Your task to perform on an android device: turn on showing notifications on the lock screen Image 0: 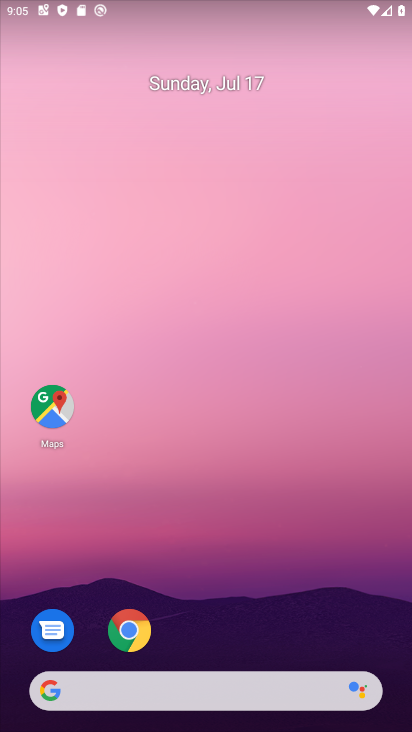
Step 0: drag from (325, 611) to (368, 91)
Your task to perform on an android device: turn on showing notifications on the lock screen Image 1: 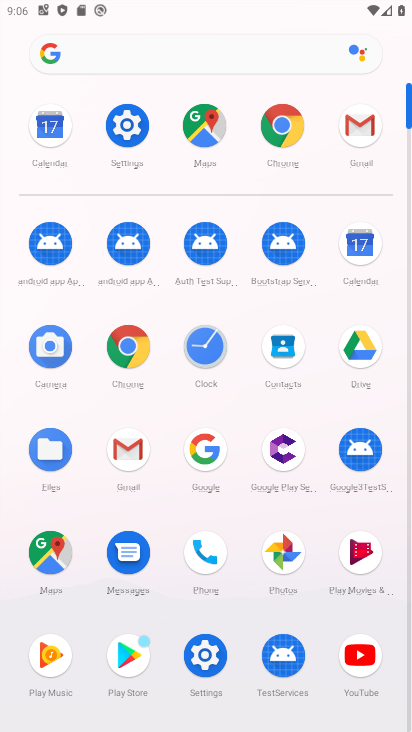
Step 1: click (130, 124)
Your task to perform on an android device: turn on showing notifications on the lock screen Image 2: 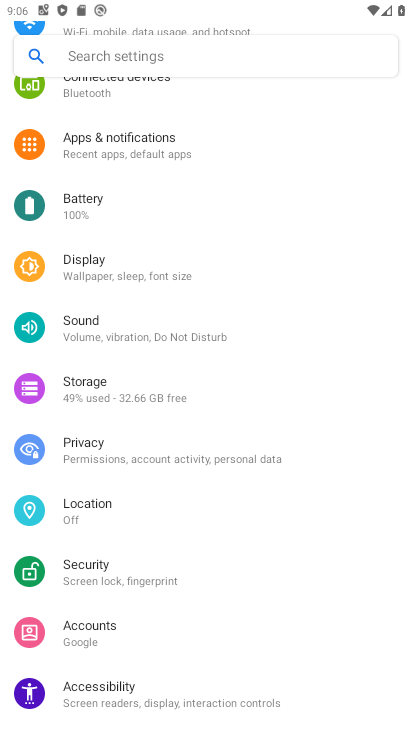
Step 2: drag from (310, 182) to (314, 244)
Your task to perform on an android device: turn on showing notifications on the lock screen Image 3: 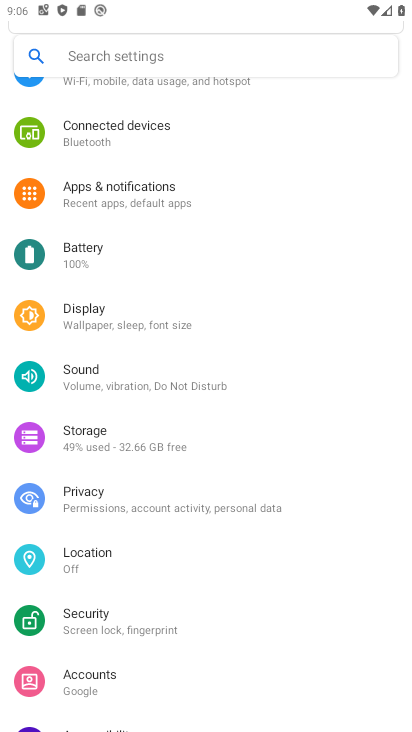
Step 3: drag from (335, 152) to (341, 230)
Your task to perform on an android device: turn on showing notifications on the lock screen Image 4: 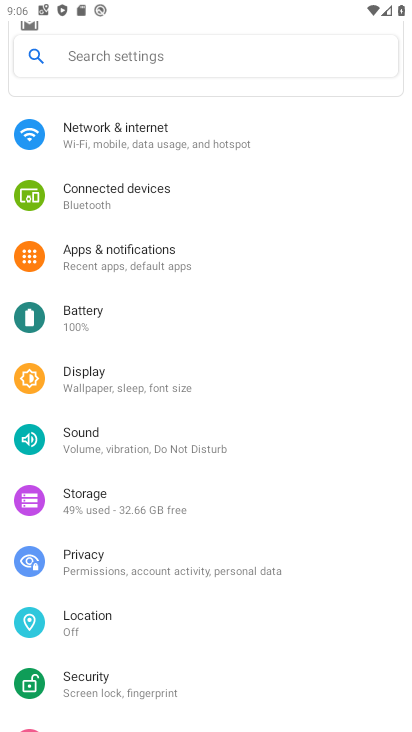
Step 4: drag from (334, 135) to (336, 238)
Your task to perform on an android device: turn on showing notifications on the lock screen Image 5: 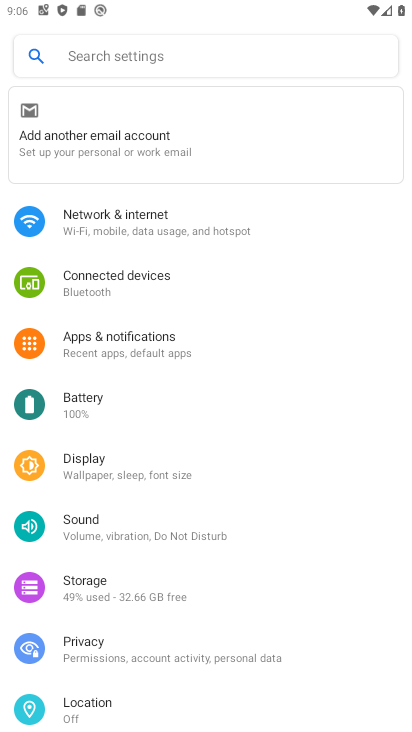
Step 5: drag from (332, 204) to (350, 322)
Your task to perform on an android device: turn on showing notifications on the lock screen Image 6: 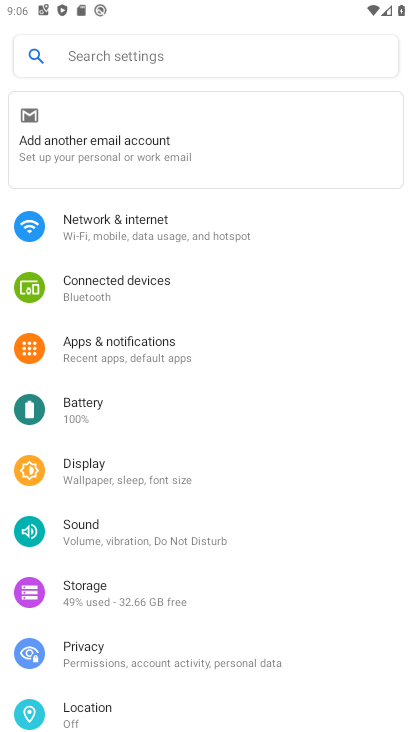
Step 6: click (238, 350)
Your task to perform on an android device: turn on showing notifications on the lock screen Image 7: 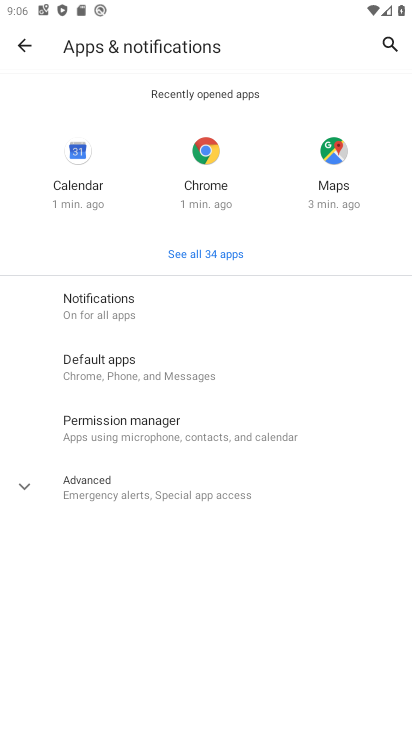
Step 7: click (204, 303)
Your task to perform on an android device: turn on showing notifications on the lock screen Image 8: 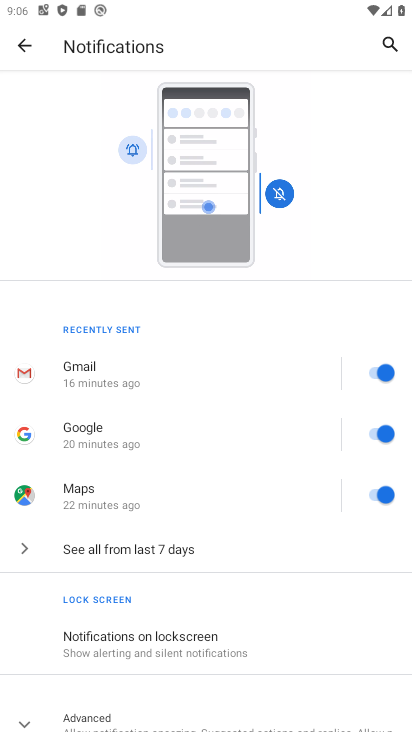
Step 8: drag from (259, 427) to (262, 355)
Your task to perform on an android device: turn on showing notifications on the lock screen Image 9: 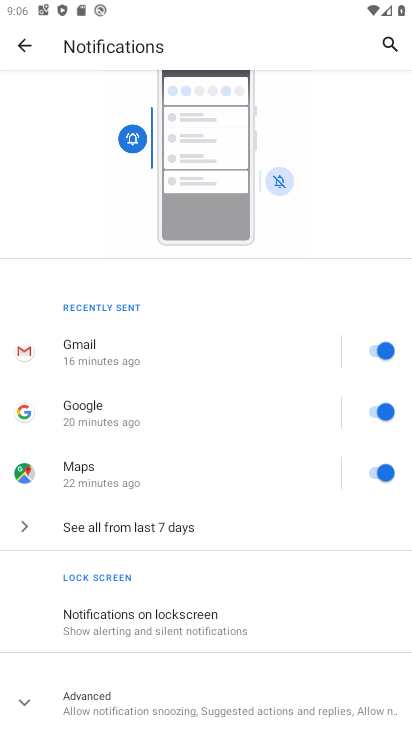
Step 9: click (260, 619)
Your task to perform on an android device: turn on showing notifications on the lock screen Image 10: 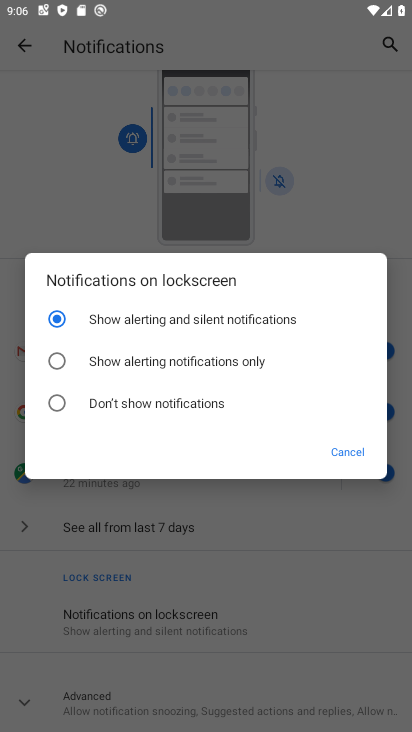
Step 10: task complete